Your task to perform on an android device: set the timer Image 0: 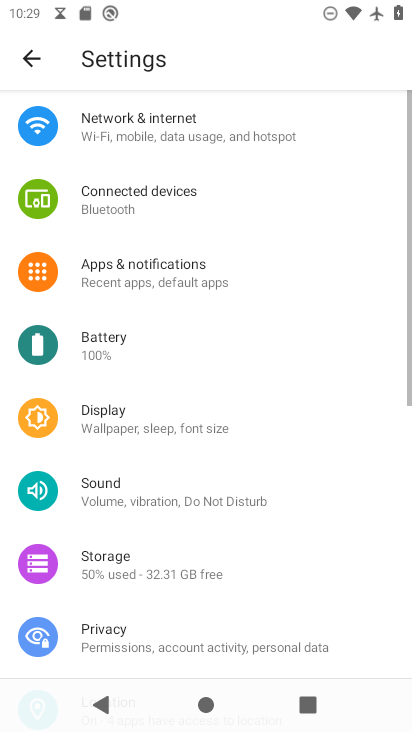
Step 0: press home button
Your task to perform on an android device: set the timer Image 1: 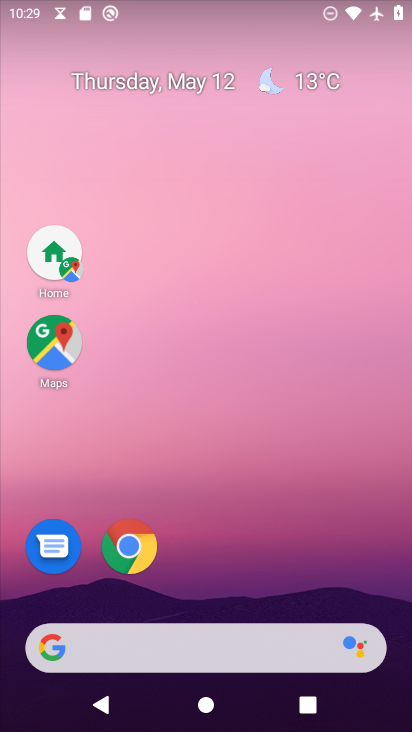
Step 1: drag from (159, 652) to (337, 76)
Your task to perform on an android device: set the timer Image 2: 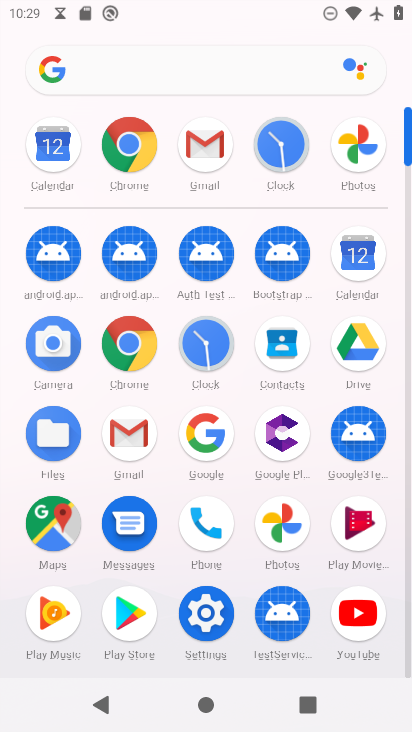
Step 2: click (281, 149)
Your task to perform on an android device: set the timer Image 3: 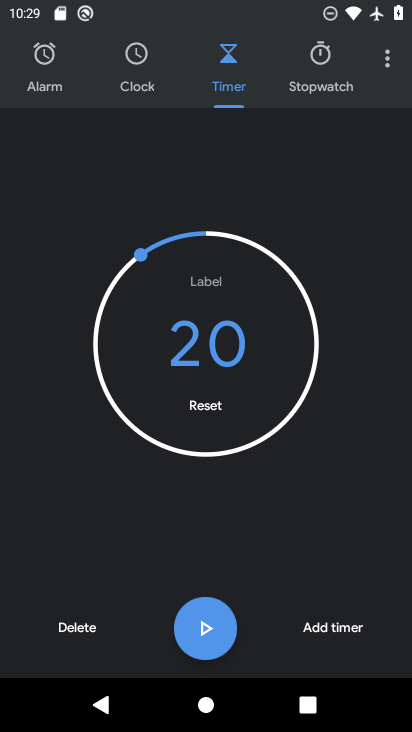
Step 3: click (69, 633)
Your task to perform on an android device: set the timer Image 4: 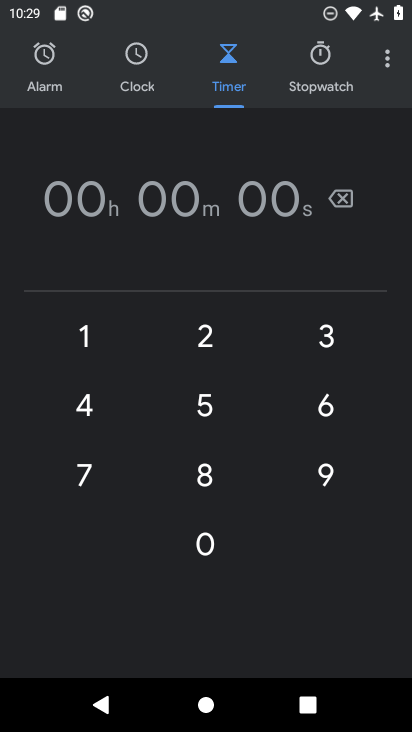
Step 4: click (207, 334)
Your task to perform on an android device: set the timer Image 5: 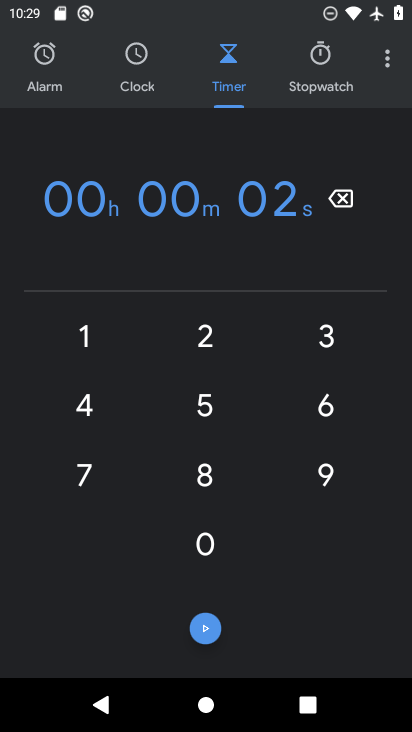
Step 5: click (205, 397)
Your task to perform on an android device: set the timer Image 6: 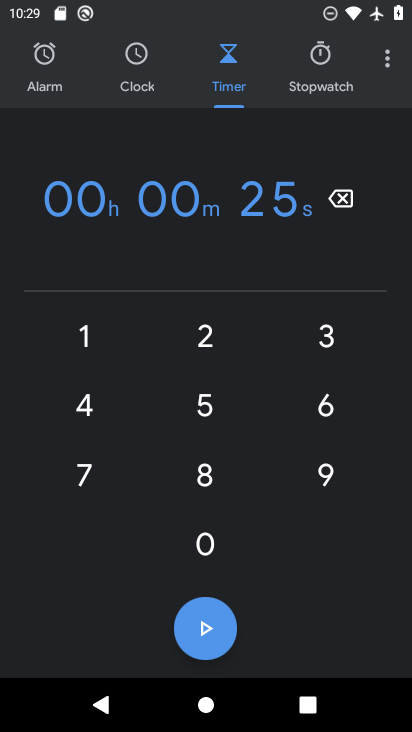
Step 6: click (203, 631)
Your task to perform on an android device: set the timer Image 7: 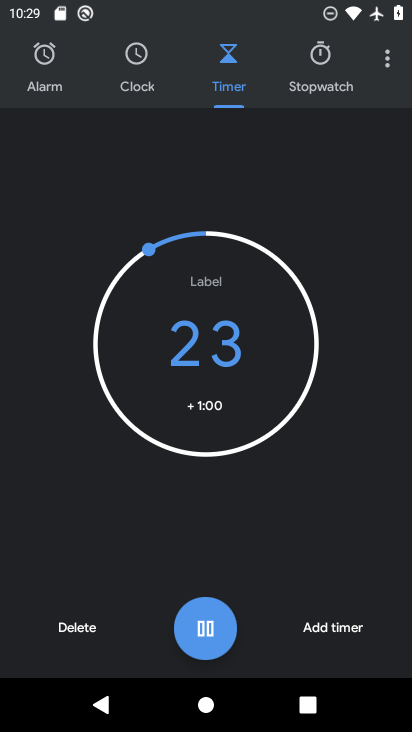
Step 7: click (208, 628)
Your task to perform on an android device: set the timer Image 8: 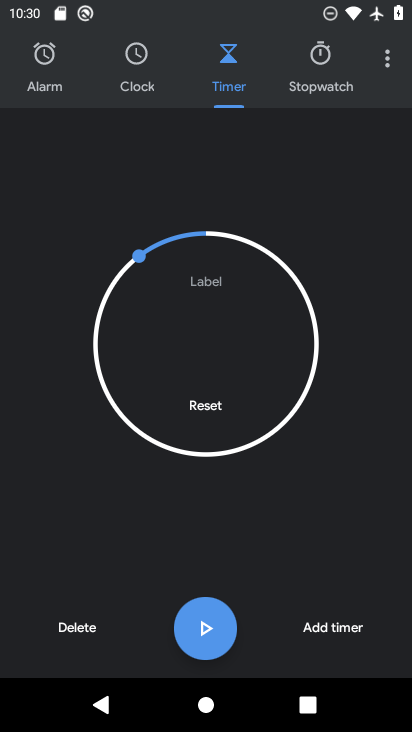
Step 8: task complete